Your task to perform on an android device: How much does the new iPad cost on eBay? Image 0: 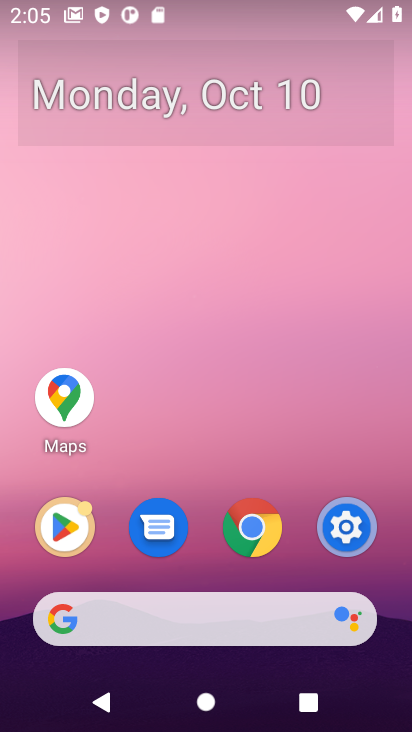
Step 0: click (259, 612)
Your task to perform on an android device: How much does the new iPad cost on eBay? Image 1: 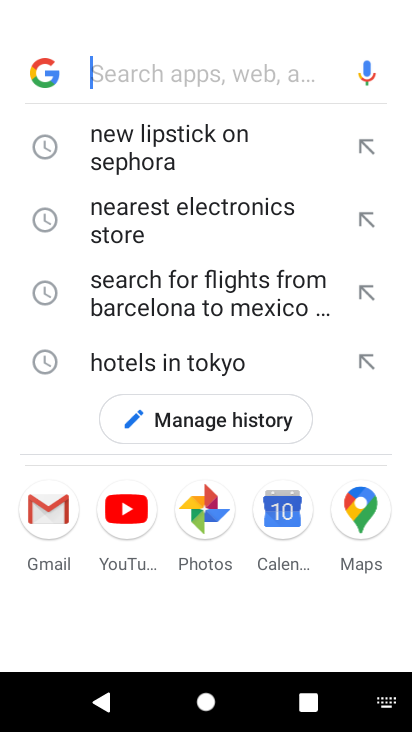
Step 1: type "How much does the new iPad cost on eBay"
Your task to perform on an android device: How much does the new iPad cost on eBay? Image 2: 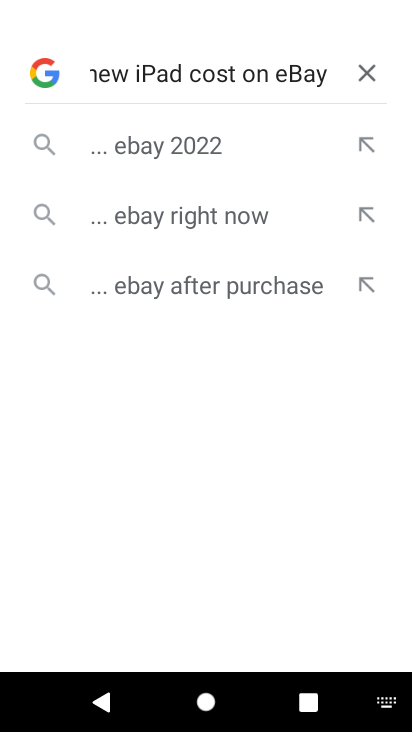
Step 2: press enter
Your task to perform on an android device: How much does the new iPad cost on eBay? Image 3: 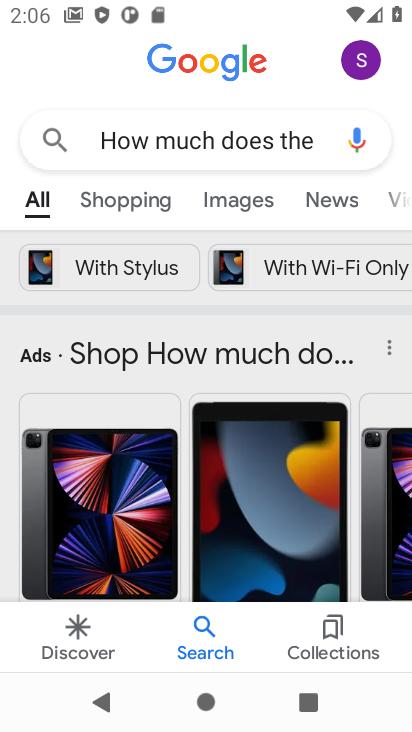
Step 3: drag from (315, 492) to (313, 297)
Your task to perform on an android device: How much does the new iPad cost on eBay? Image 4: 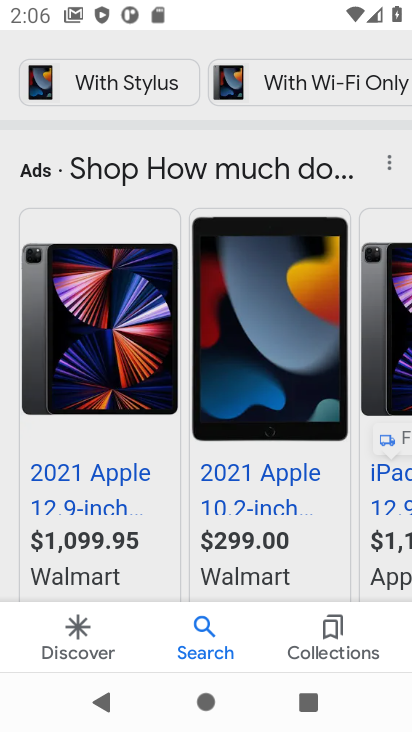
Step 4: drag from (293, 494) to (301, 363)
Your task to perform on an android device: How much does the new iPad cost on eBay? Image 5: 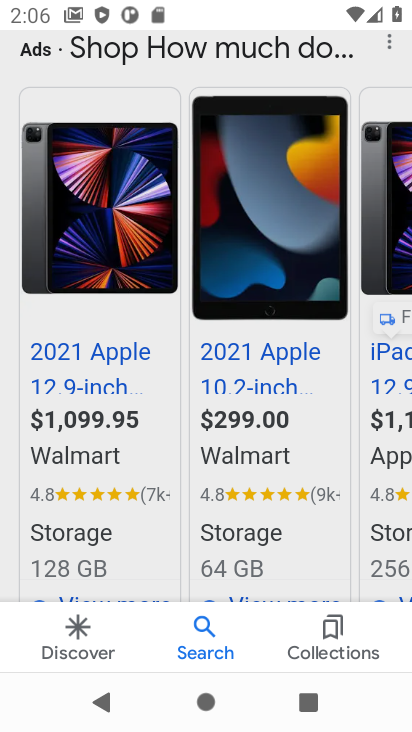
Step 5: drag from (301, 557) to (310, 277)
Your task to perform on an android device: How much does the new iPad cost on eBay? Image 6: 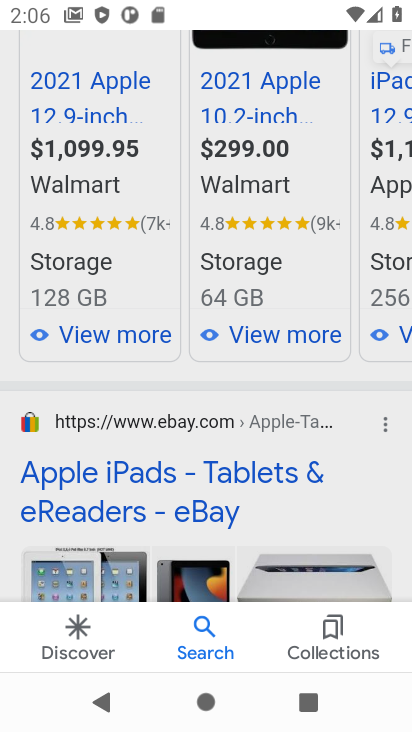
Step 6: click (256, 488)
Your task to perform on an android device: How much does the new iPad cost on eBay? Image 7: 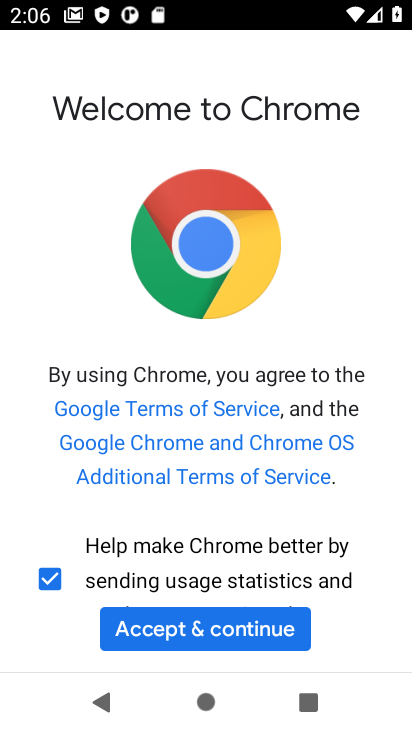
Step 7: click (251, 619)
Your task to perform on an android device: How much does the new iPad cost on eBay? Image 8: 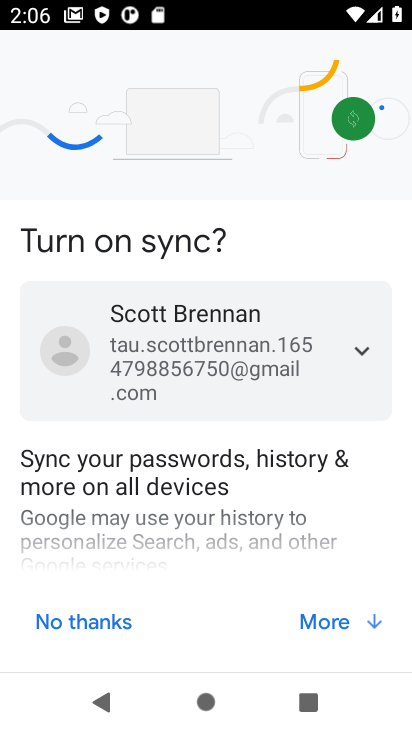
Step 8: click (90, 626)
Your task to perform on an android device: How much does the new iPad cost on eBay? Image 9: 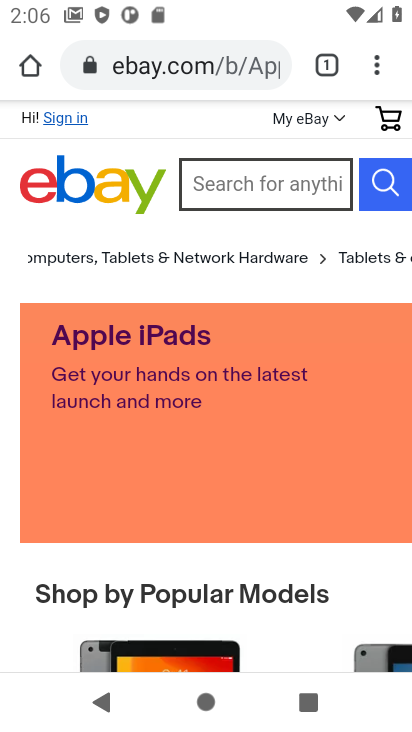
Step 9: drag from (312, 582) to (326, 376)
Your task to perform on an android device: How much does the new iPad cost on eBay? Image 10: 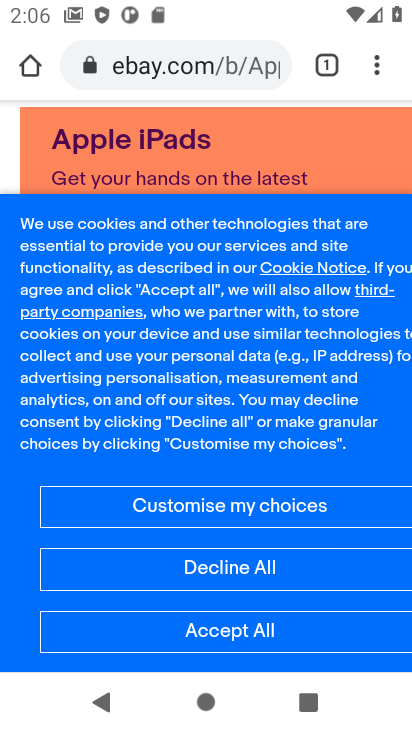
Step 10: click (259, 641)
Your task to perform on an android device: How much does the new iPad cost on eBay? Image 11: 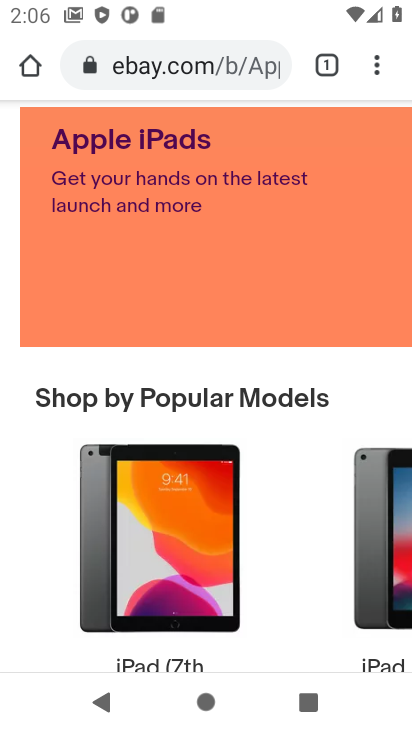
Step 11: task complete